Your task to perform on an android device: Open display settings Image 0: 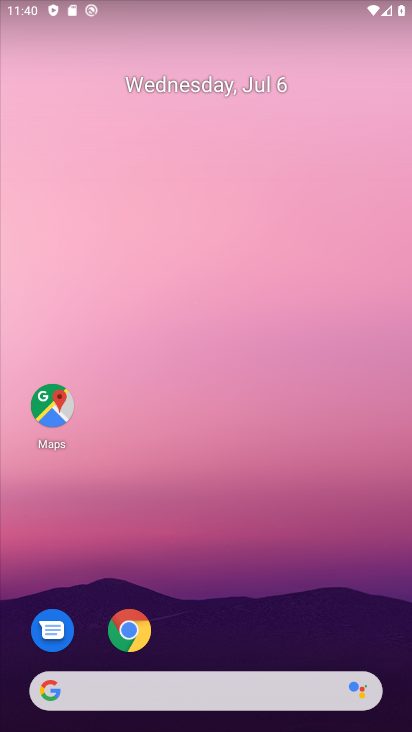
Step 0: drag from (235, 573) to (280, 102)
Your task to perform on an android device: Open display settings Image 1: 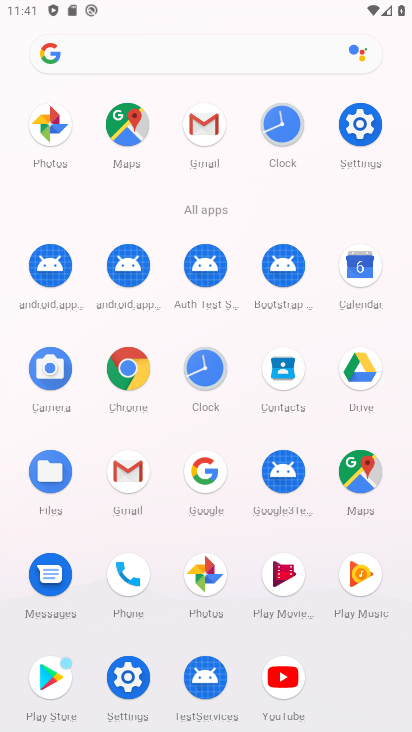
Step 1: click (124, 669)
Your task to perform on an android device: Open display settings Image 2: 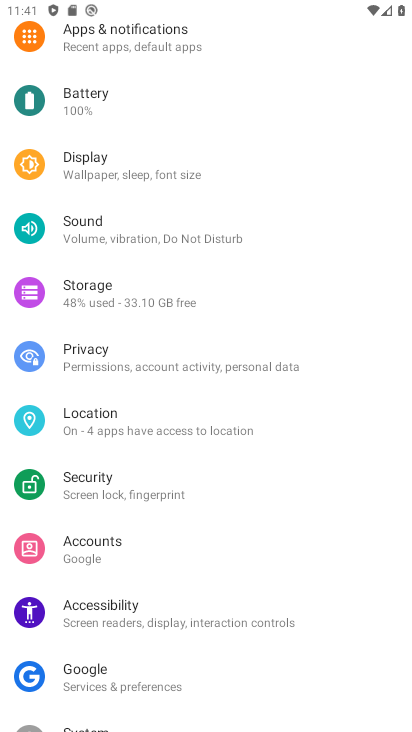
Step 2: click (116, 169)
Your task to perform on an android device: Open display settings Image 3: 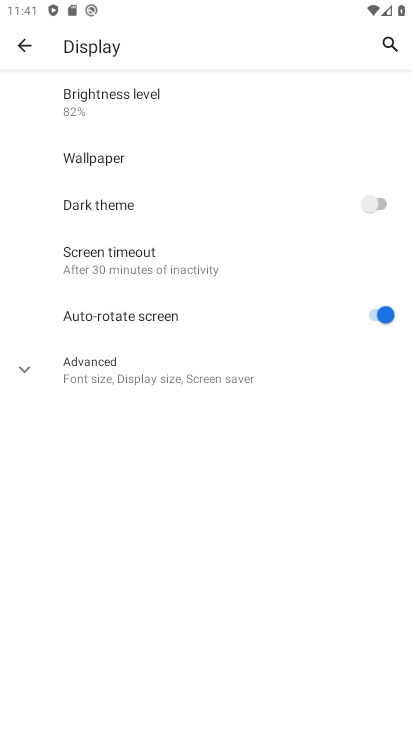
Step 3: task complete